Your task to perform on an android device: toggle wifi Image 0: 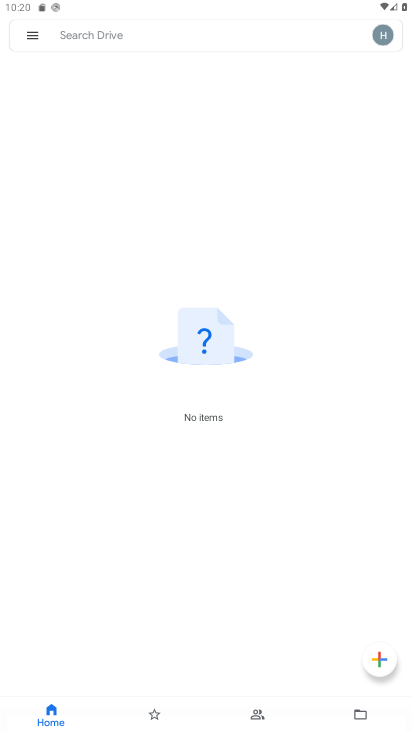
Step 0: press home button
Your task to perform on an android device: toggle wifi Image 1: 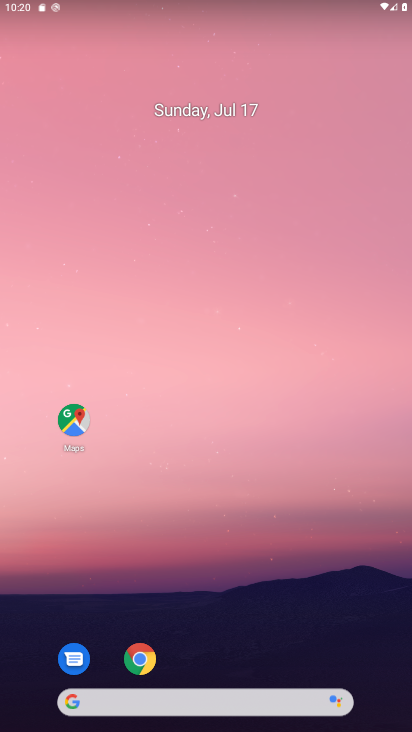
Step 1: drag from (242, 549) to (274, 202)
Your task to perform on an android device: toggle wifi Image 2: 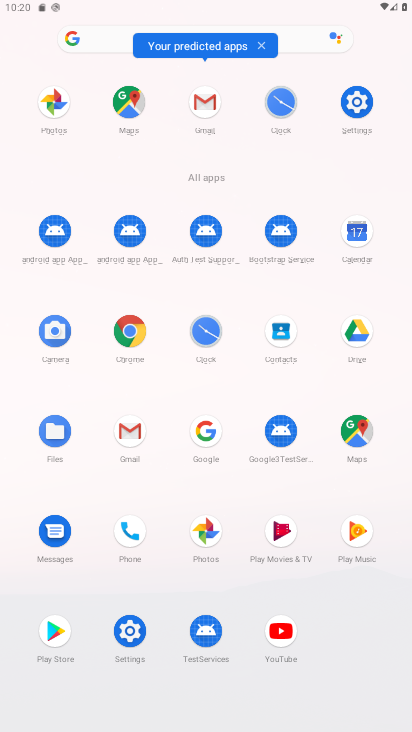
Step 2: click (126, 626)
Your task to perform on an android device: toggle wifi Image 3: 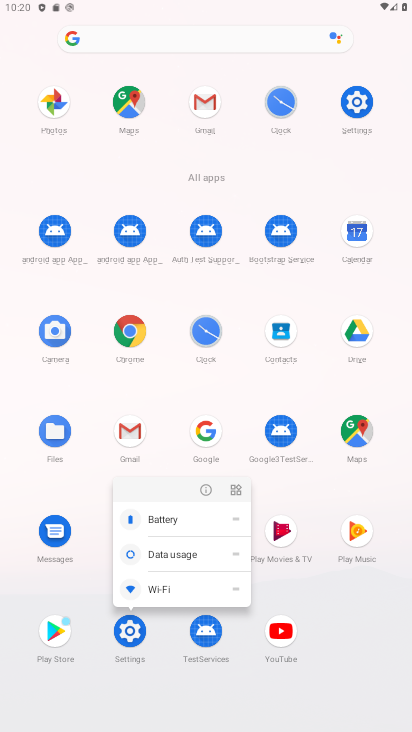
Step 3: click (127, 627)
Your task to perform on an android device: toggle wifi Image 4: 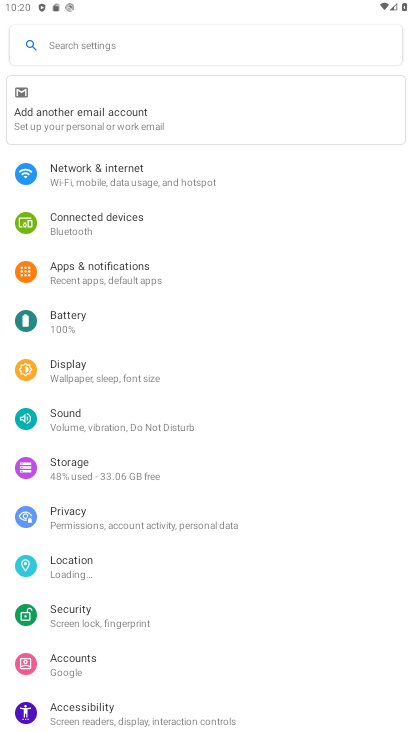
Step 4: click (166, 182)
Your task to perform on an android device: toggle wifi Image 5: 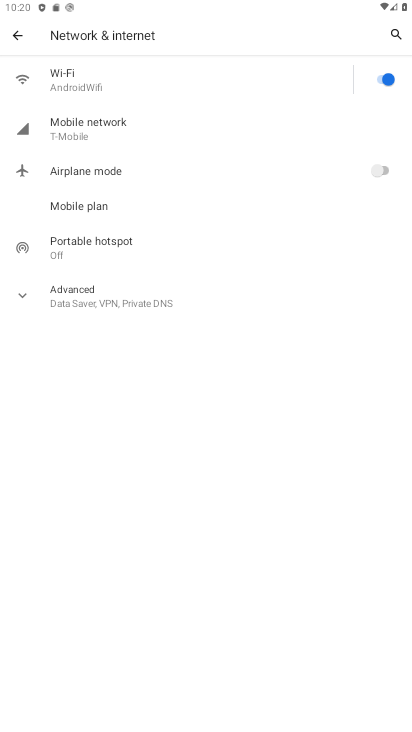
Step 5: click (383, 85)
Your task to perform on an android device: toggle wifi Image 6: 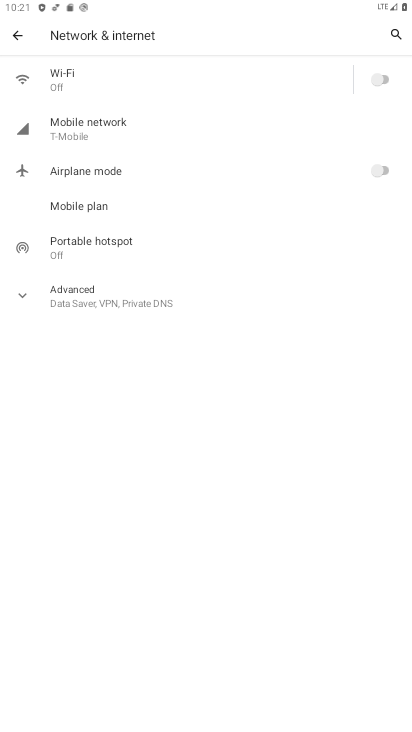
Step 6: task complete